Your task to perform on an android device: turn off picture-in-picture Image 0: 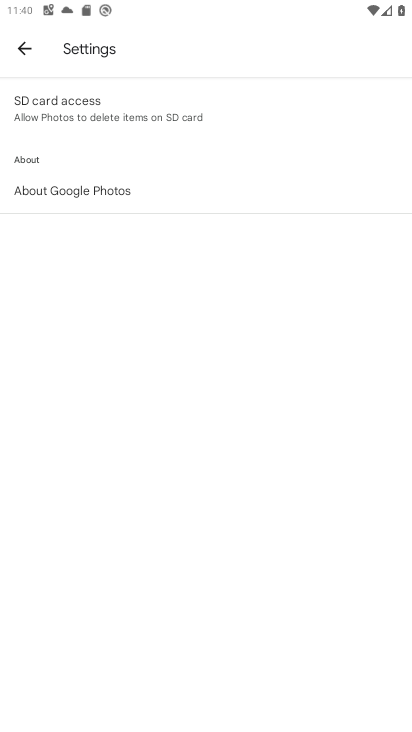
Step 0: press home button
Your task to perform on an android device: turn off picture-in-picture Image 1: 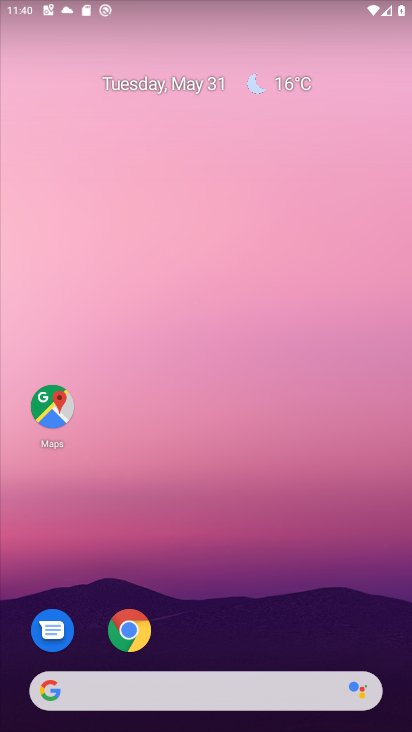
Step 1: click (128, 640)
Your task to perform on an android device: turn off picture-in-picture Image 2: 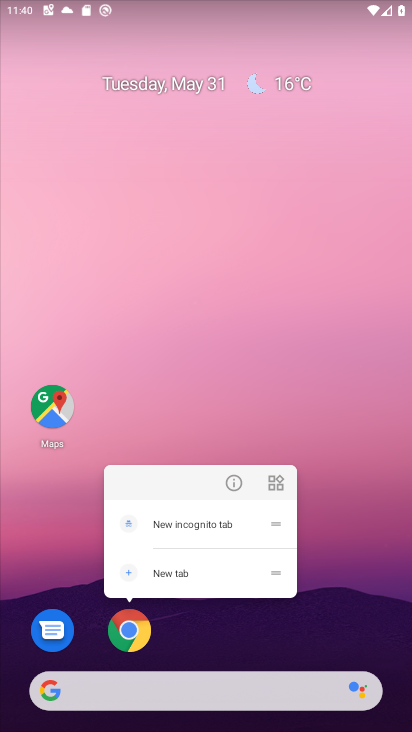
Step 2: click (232, 486)
Your task to perform on an android device: turn off picture-in-picture Image 3: 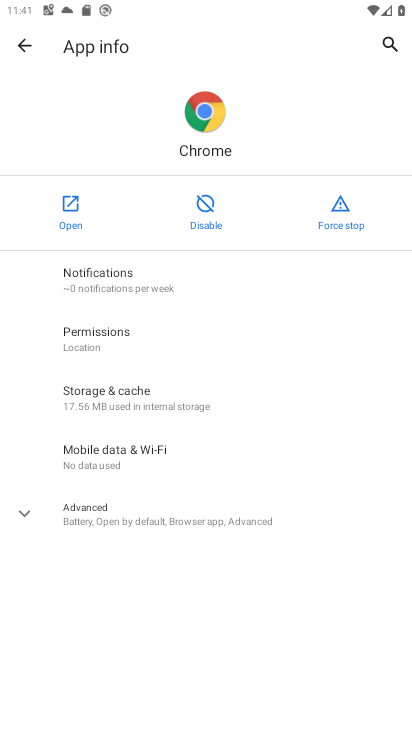
Step 3: click (102, 501)
Your task to perform on an android device: turn off picture-in-picture Image 4: 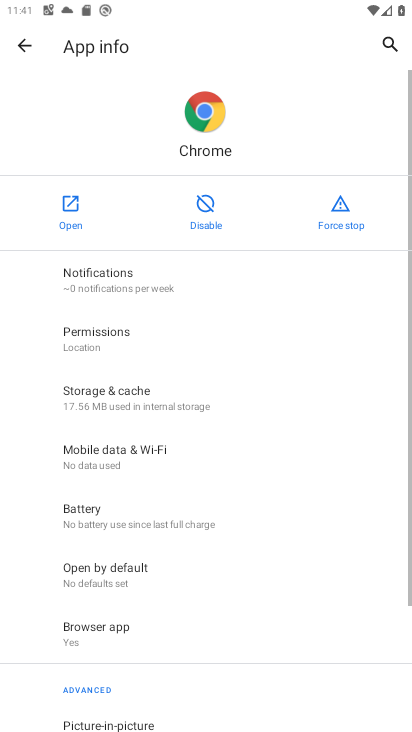
Step 4: drag from (263, 650) to (301, 137)
Your task to perform on an android device: turn off picture-in-picture Image 5: 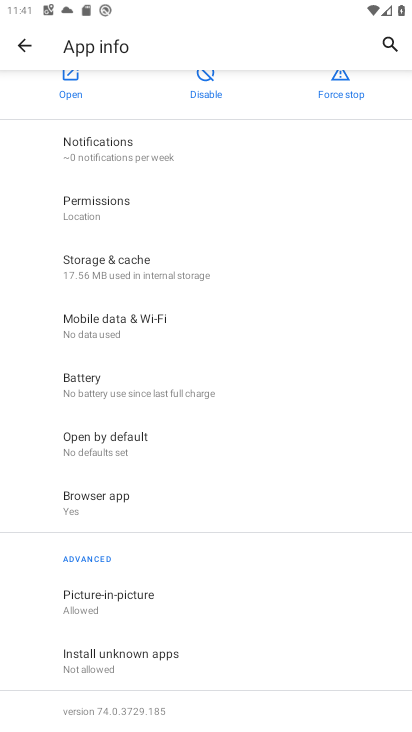
Step 5: click (134, 584)
Your task to perform on an android device: turn off picture-in-picture Image 6: 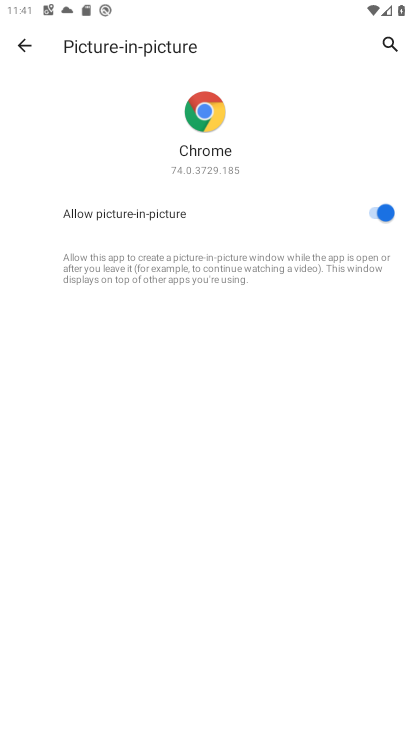
Step 6: click (383, 205)
Your task to perform on an android device: turn off picture-in-picture Image 7: 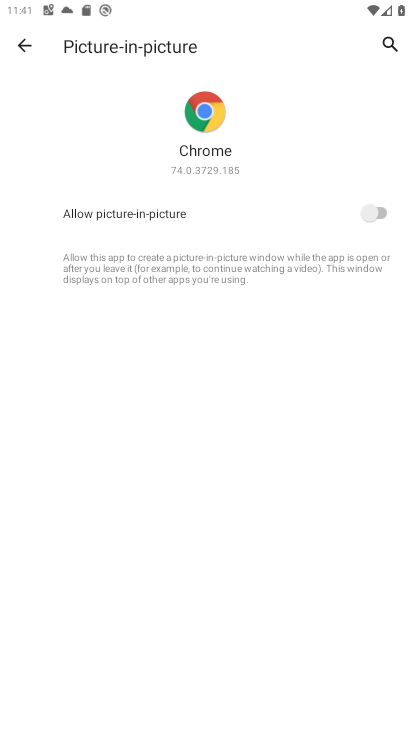
Step 7: task complete